Your task to perform on an android device: change the clock display to analog Image 0: 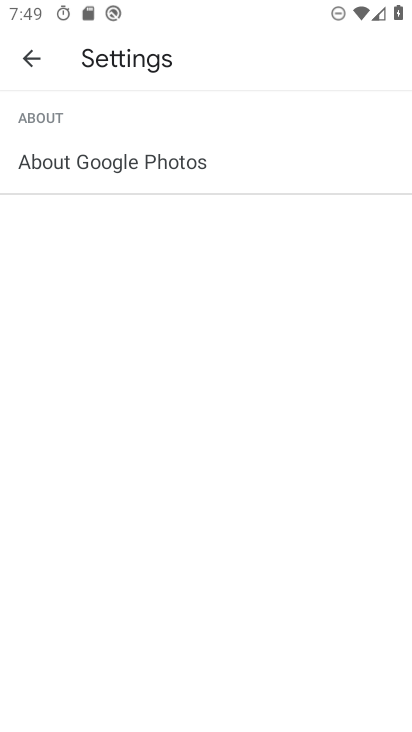
Step 0: press back button
Your task to perform on an android device: change the clock display to analog Image 1: 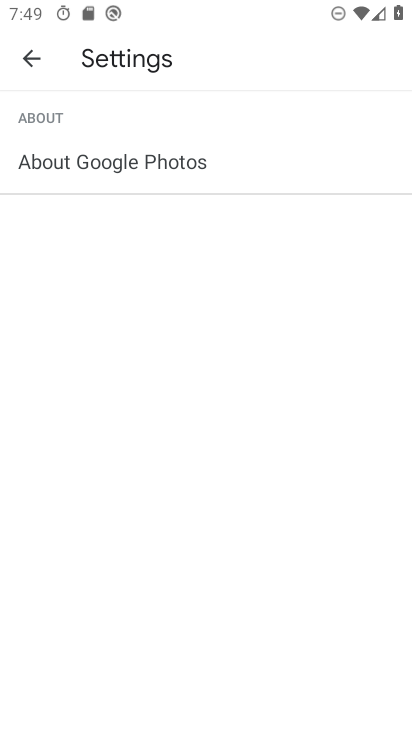
Step 1: press back button
Your task to perform on an android device: change the clock display to analog Image 2: 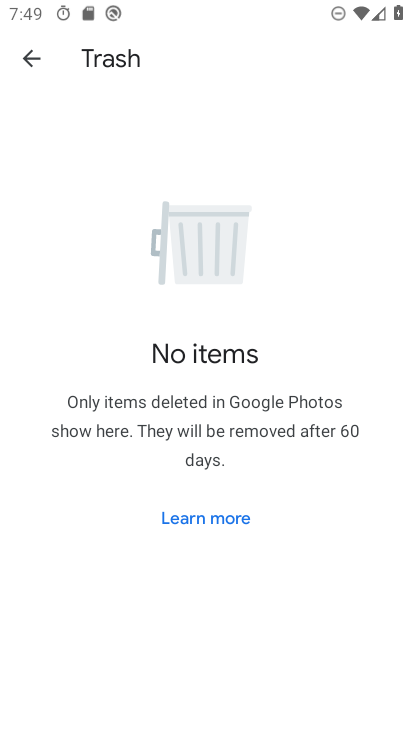
Step 2: press back button
Your task to perform on an android device: change the clock display to analog Image 3: 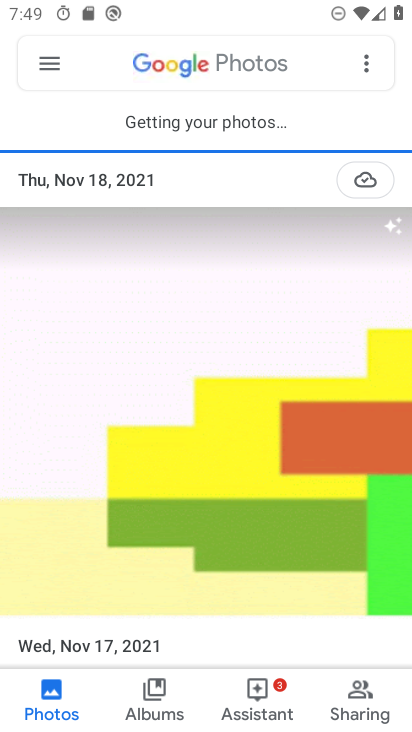
Step 3: press back button
Your task to perform on an android device: change the clock display to analog Image 4: 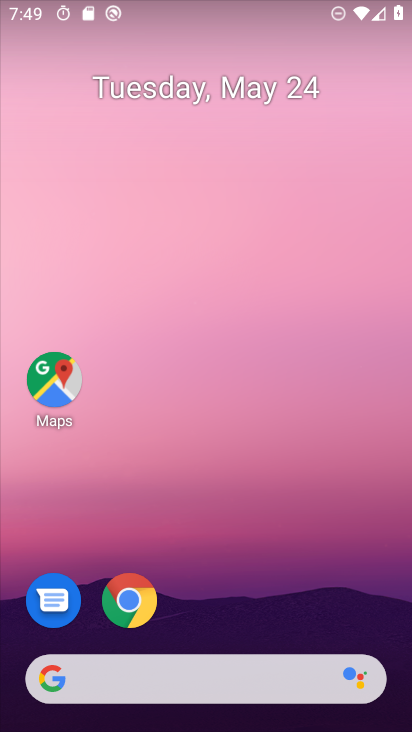
Step 4: drag from (284, 533) to (344, 98)
Your task to perform on an android device: change the clock display to analog Image 5: 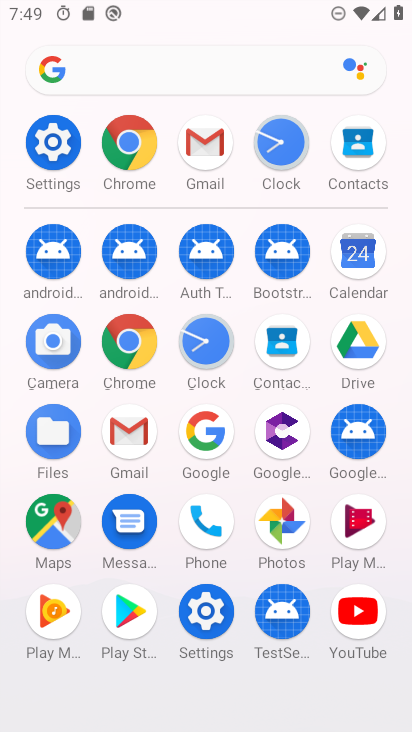
Step 5: click (205, 341)
Your task to perform on an android device: change the clock display to analog Image 6: 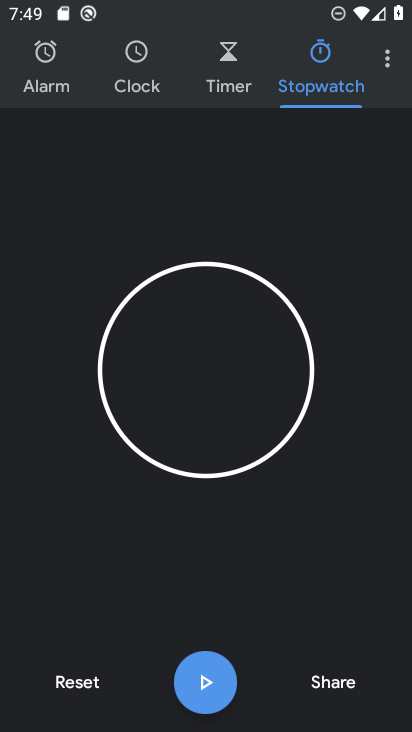
Step 6: click (385, 54)
Your task to perform on an android device: change the clock display to analog Image 7: 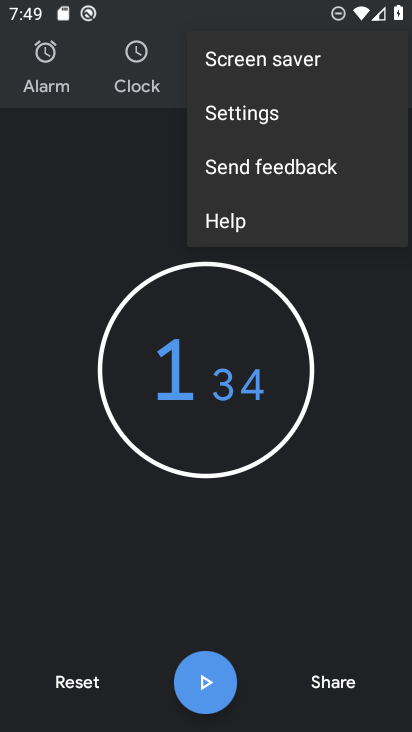
Step 7: click (264, 112)
Your task to perform on an android device: change the clock display to analog Image 8: 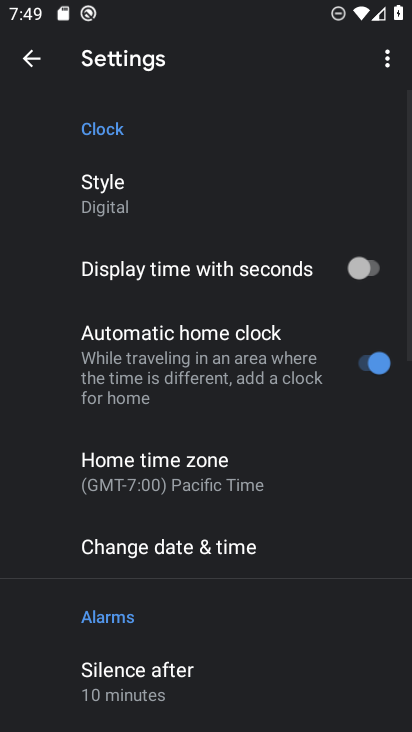
Step 8: click (173, 192)
Your task to perform on an android device: change the clock display to analog Image 9: 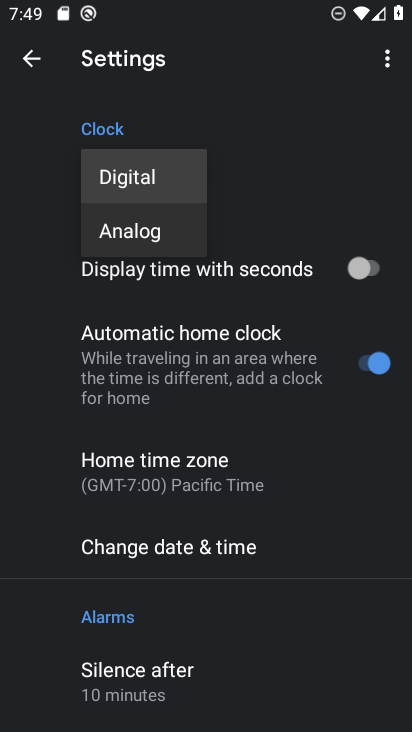
Step 9: click (136, 238)
Your task to perform on an android device: change the clock display to analog Image 10: 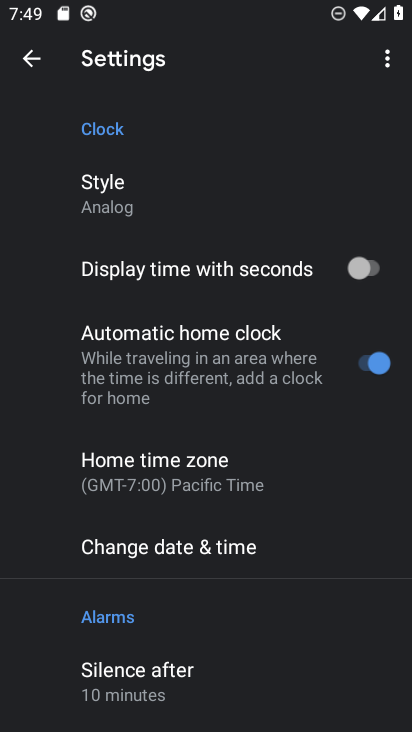
Step 10: task complete